Your task to perform on an android device: read, delete, or share a saved page in the chrome app Image 0: 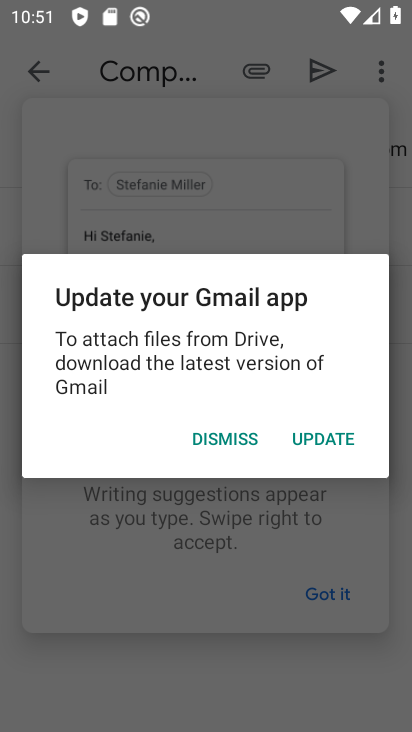
Step 0: press home button
Your task to perform on an android device: read, delete, or share a saved page in the chrome app Image 1: 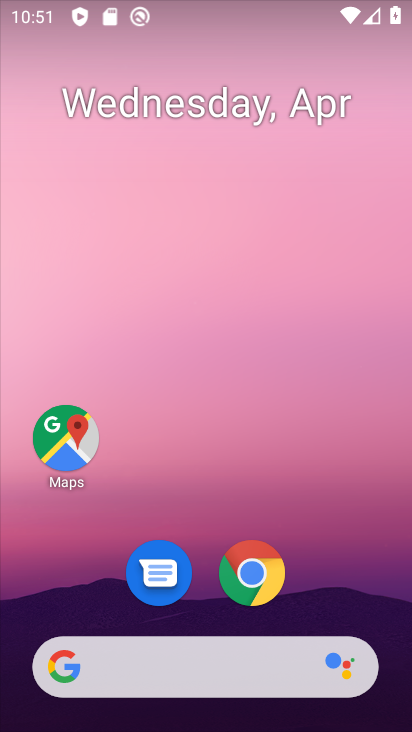
Step 1: click (259, 577)
Your task to perform on an android device: read, delete, or share a saved page in the chrome app Image 2: 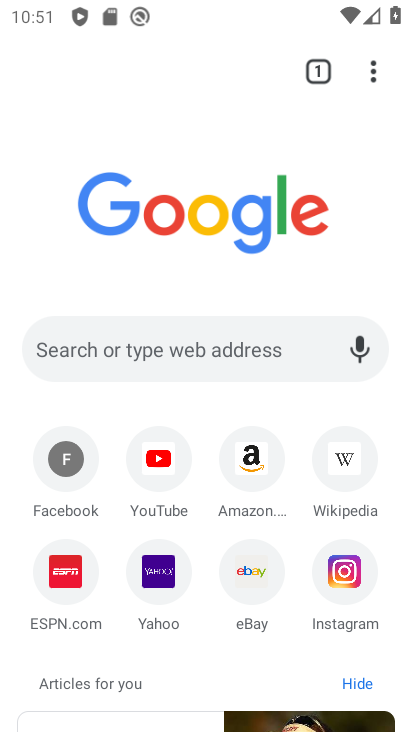
Step 2: click (374, 77)
Your task to perform on an android device: read, delete, or share a saved page in the chrome app Image 3: 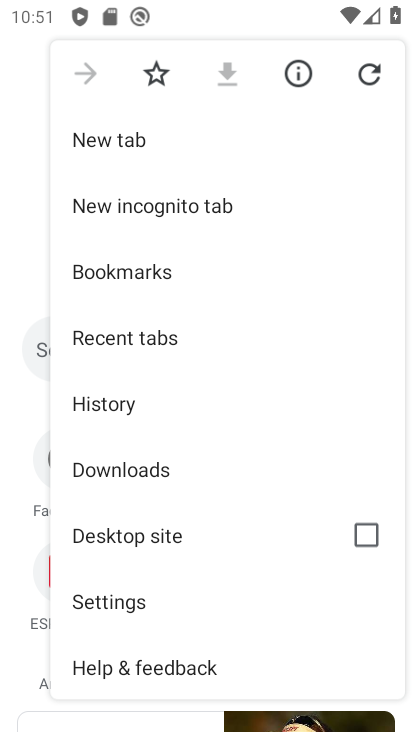
Step 3: click (90, 470)
Your task to perform on an android device: read, delete, or share a saved page in the chrome app Image 4: 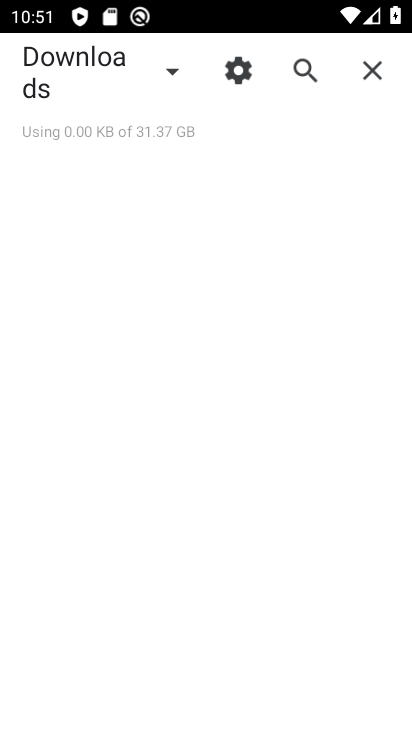
Step 4: click (171, 74)
Your task to perform on an android device: read, delete, or share a saved page in the chrome app Image 5: 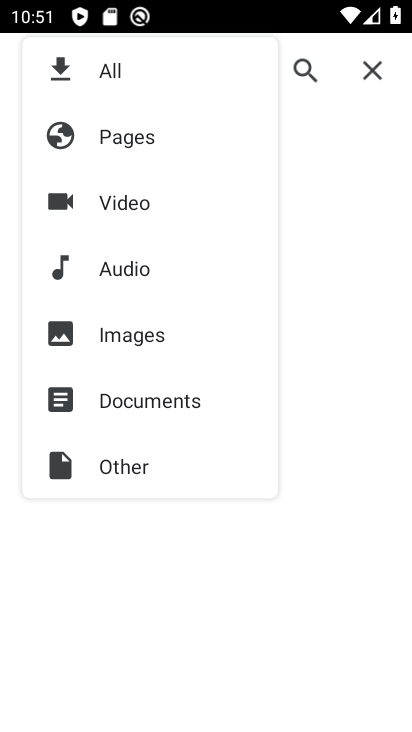
Step 5: click (136, 141)
Your task to perform on an android device: read, delete, or share a saved page in the chrome app Image 6: 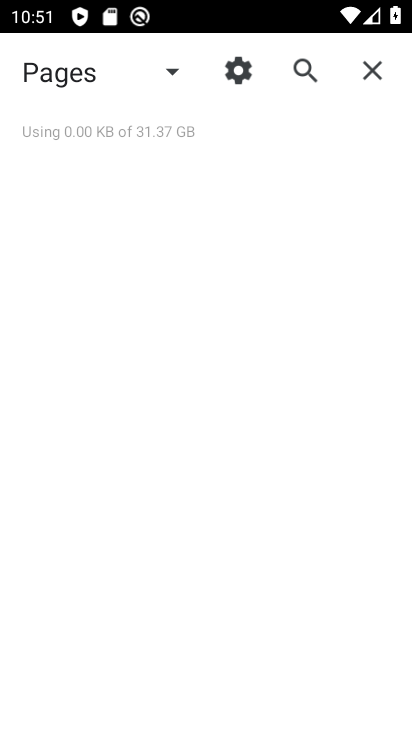
Step 6: task complete